Your task to perform on an android device: What's on my calendar tomorrow? Image 0: 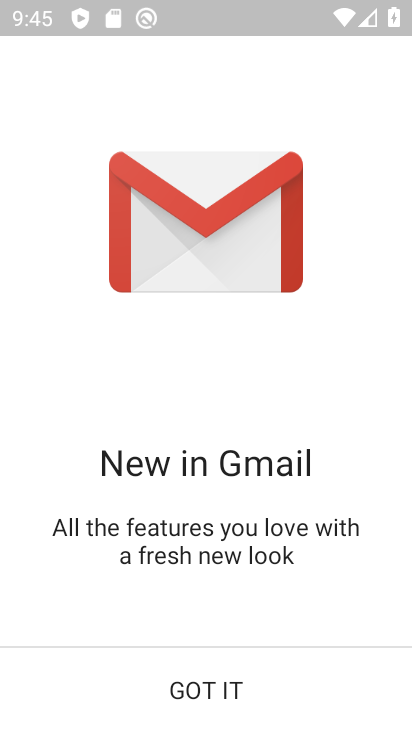
Step 0: press home button
Your task to perform on an android device: What's on my calendar tomorrow? Image 1: 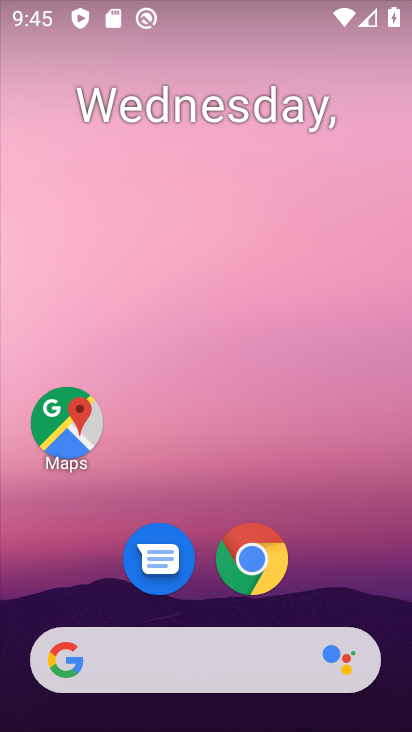
Step 1: drag from (354, 574) to (344, 79)
Your task to perform on an android device: What's on my calendar tomorrow? Image 2: 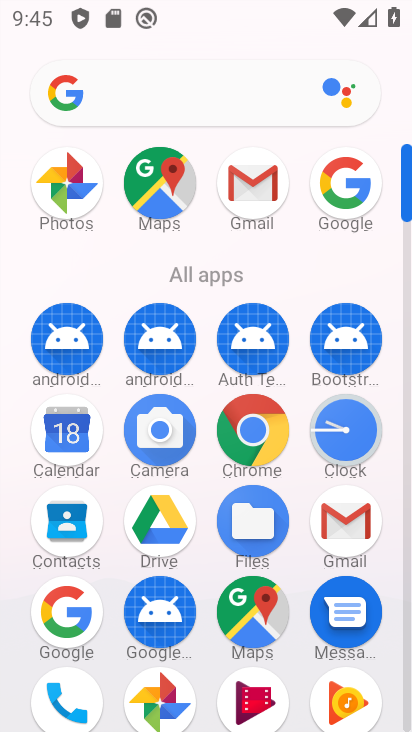
Step 2: click (86, 413)
Your task to perform on an android device: What's on my calendar tomorrow? Image 3: 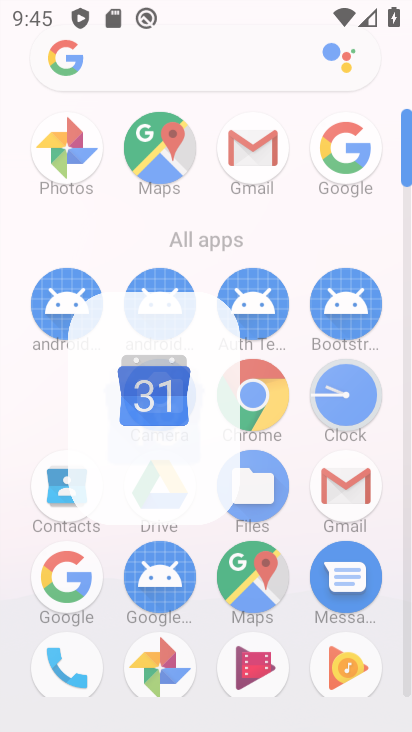
Step 3: click (49, 456)
Your task to perform on an android device: What's on my calendar tomorrow? Image 4: 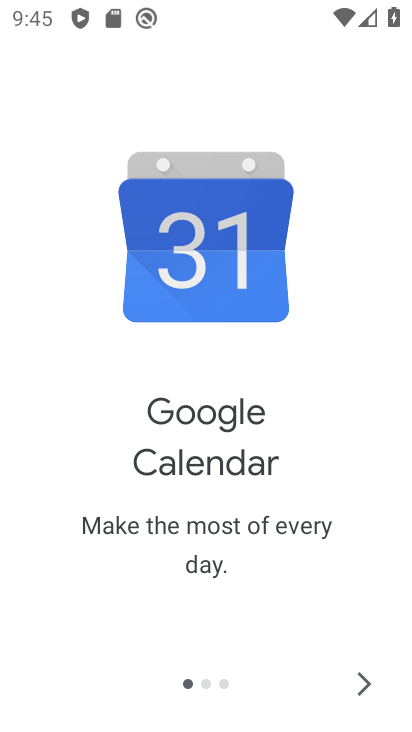
Step 4: click (365, 697)
Your task to perform on an android device: What's on my calendar tomorrow? Image 5: 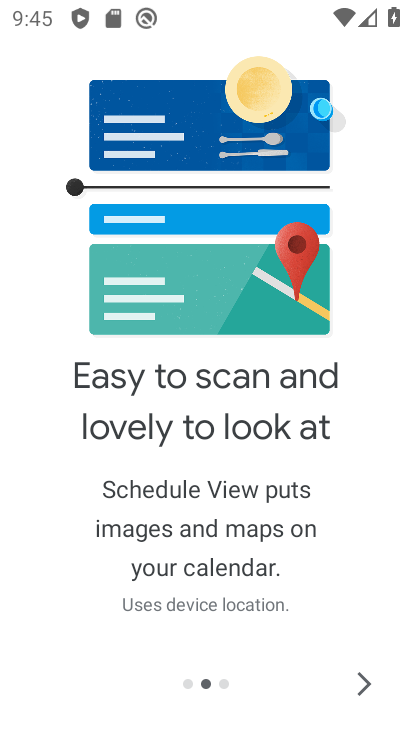
Step 5: click (365, 697)
Your task to perform on an android device: What's on my calendar tomorrow? Image 6: 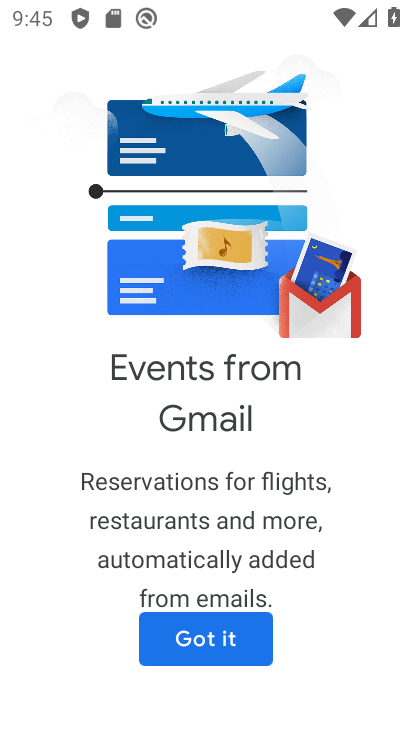
Step 6: click (252, 640)
Your task to perform on an android device: What's on my calendar tomorrow? Image 7: 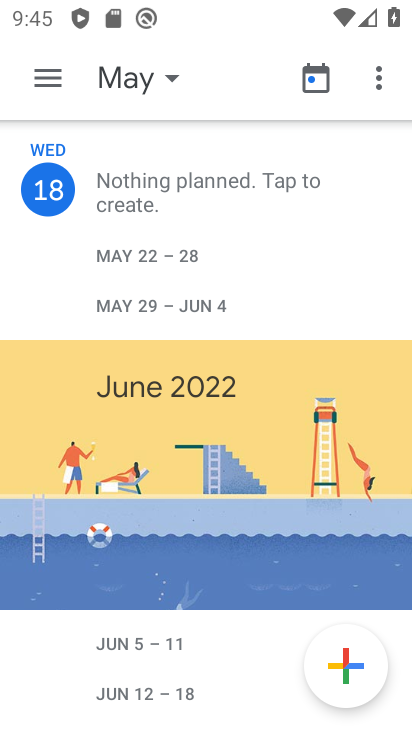
Step 7: click (142, 74)
Your task to perform on an android device: What's on my calendar tomorrow? Image 8: 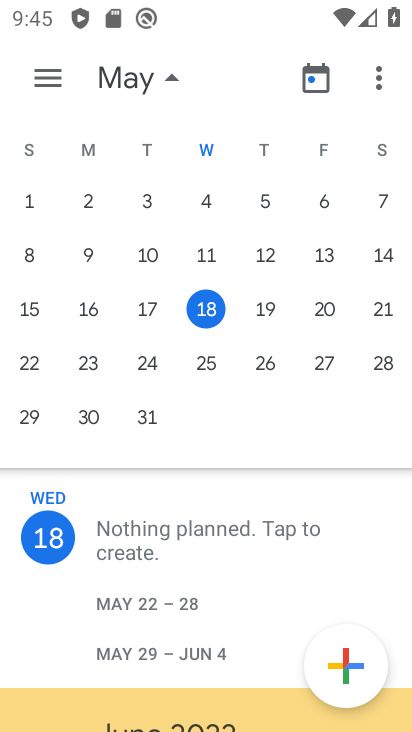
Step 8: click (264, 308)
Your task to perform on an android device: What's on my calendar tomorrow? Image 9: 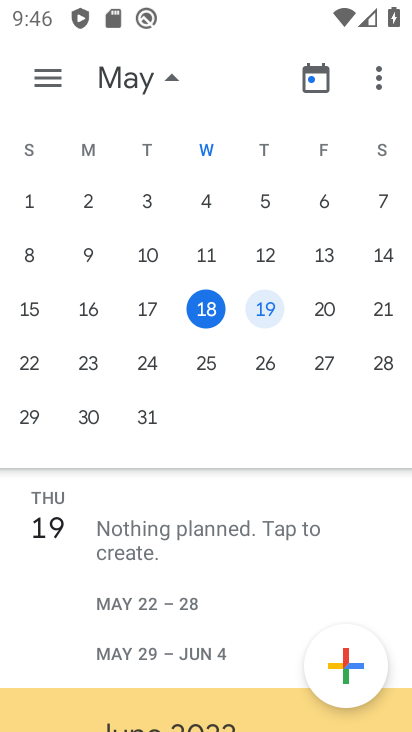
Step 9: task complete